Your task to perform on an android device: visit the assistant section in the google photos Image 0: 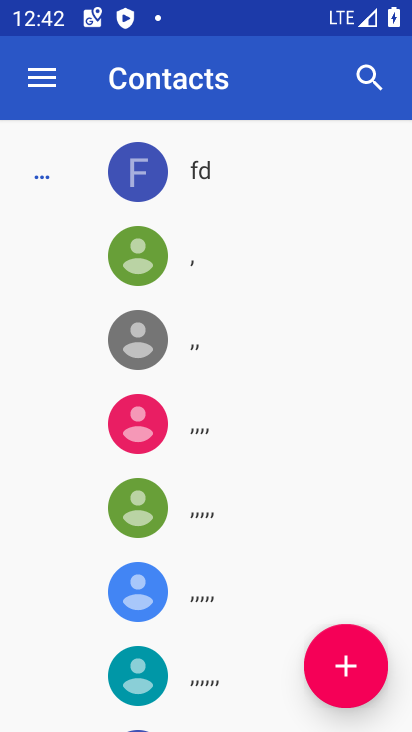
Step 0: click (249, 659)
Your task to perform on an android device: visit the assistant section in the google photos Image 1: 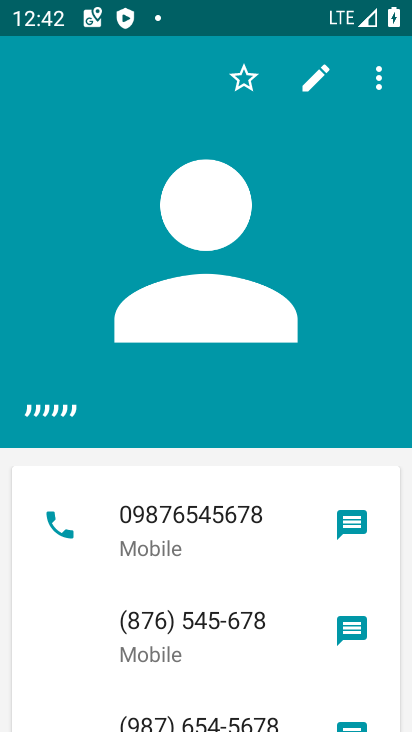
Step 1: press home button
Your task to perform on an android device: visit the assistant section in the google photos Image 2: 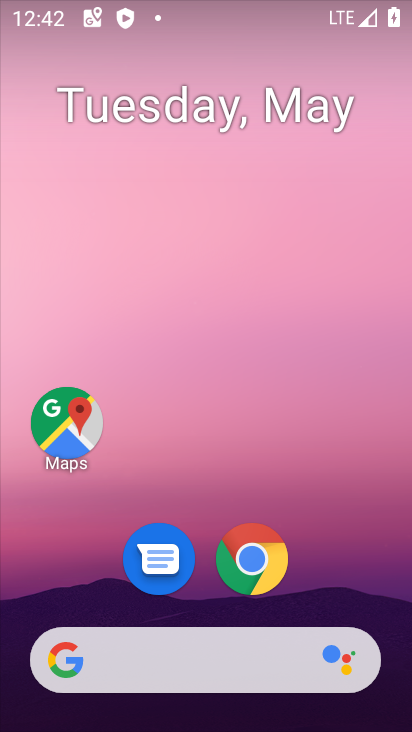
Step 2: drag from (358, 535) to (288, 59)
Your task to perform on an android device: visit the assistant section in the google photos Image 3: 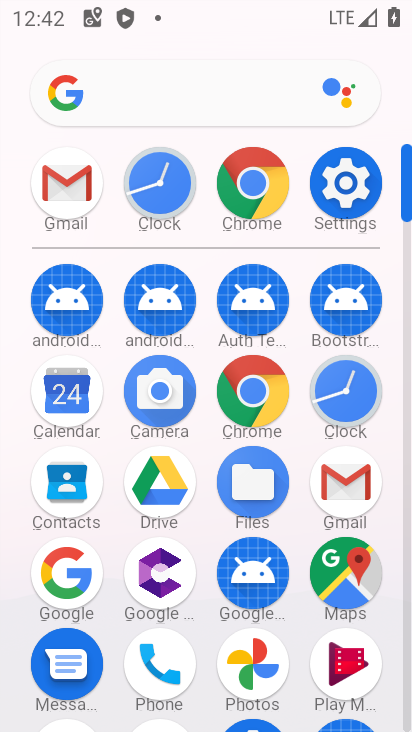
Step 3: click (254, 670)
Your task to perform on an android device: visit the assistant section in the google photos Image 4: 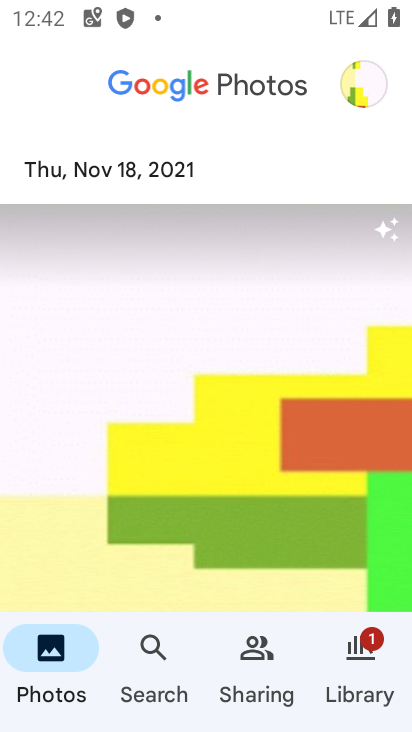
Step 4: click (344, 662)
Your task to perform on an android device: visit the assistant section in the google photos Image 5: 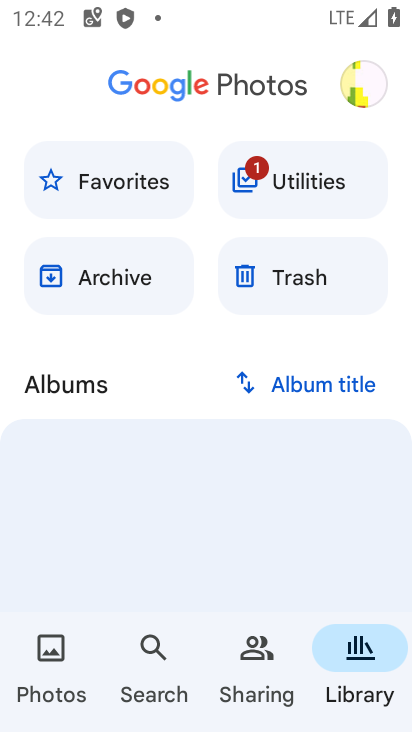
Step 5: click (300, 188)
Your task to perform on an android device: visit the assistant section in the google photos Image 6: 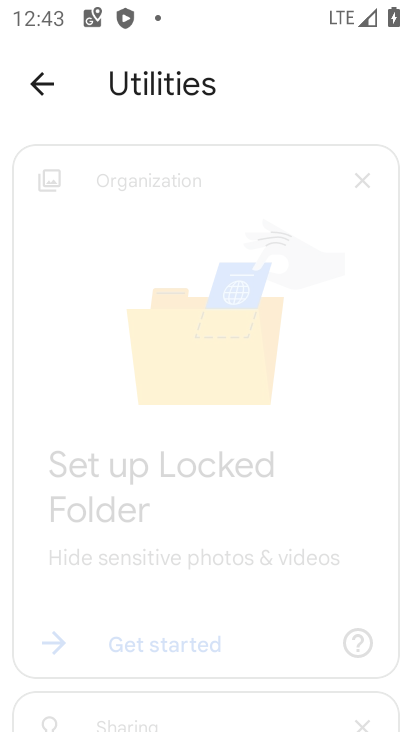
Step 6: task complete